Your task to perform on an android device: empty trash in the gmail app Image 0: 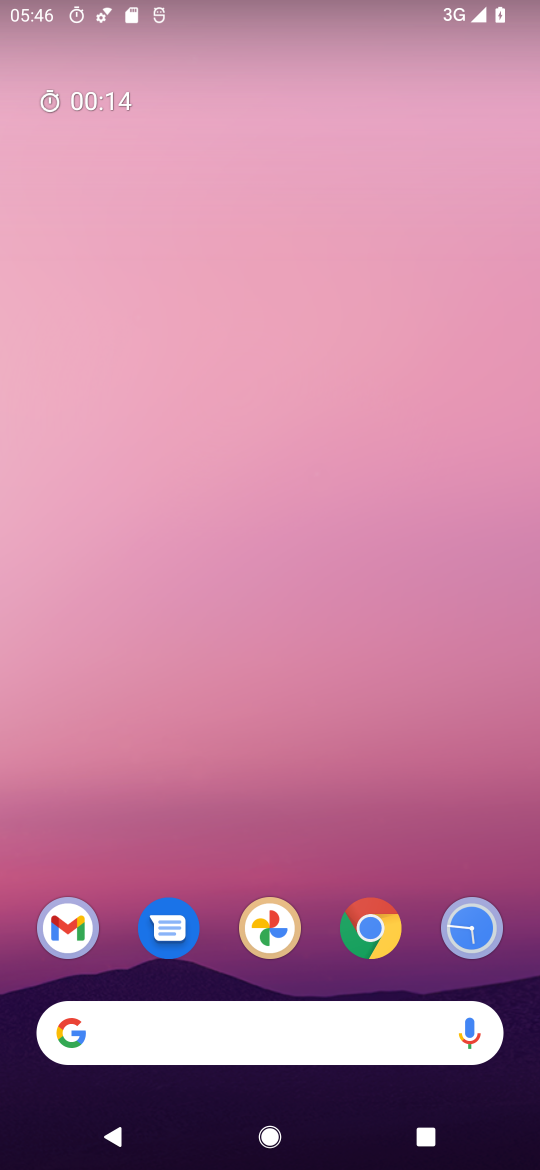
Step 0: click (76, 921)
Your task to perform on an android device: empty trash in the gmail app Image 1: 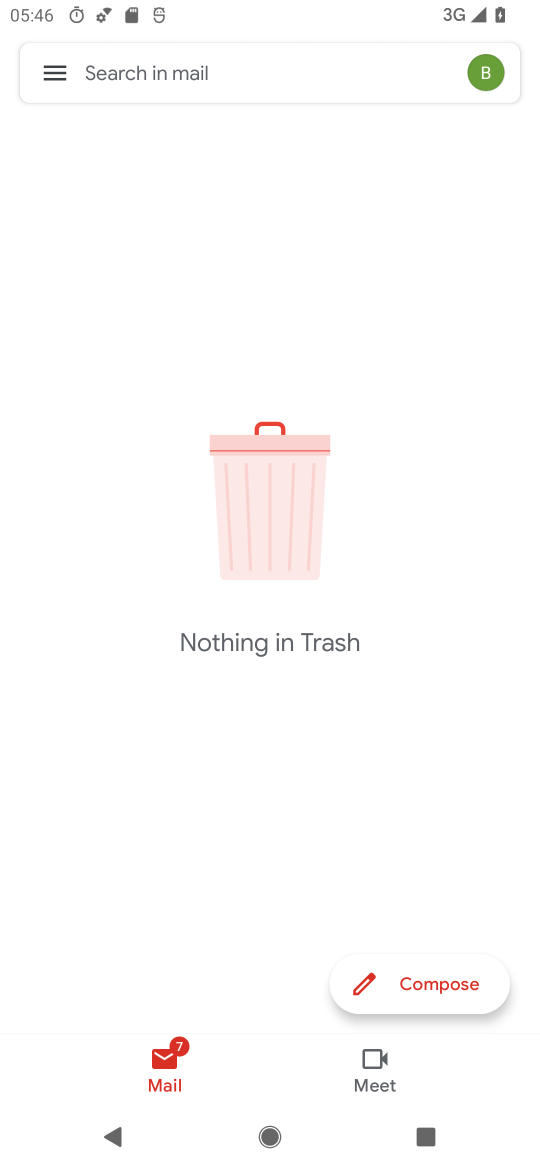
Step 1: click (45, 50)
Your task to perform on an android device: empty trash in the gmail app Image 2: 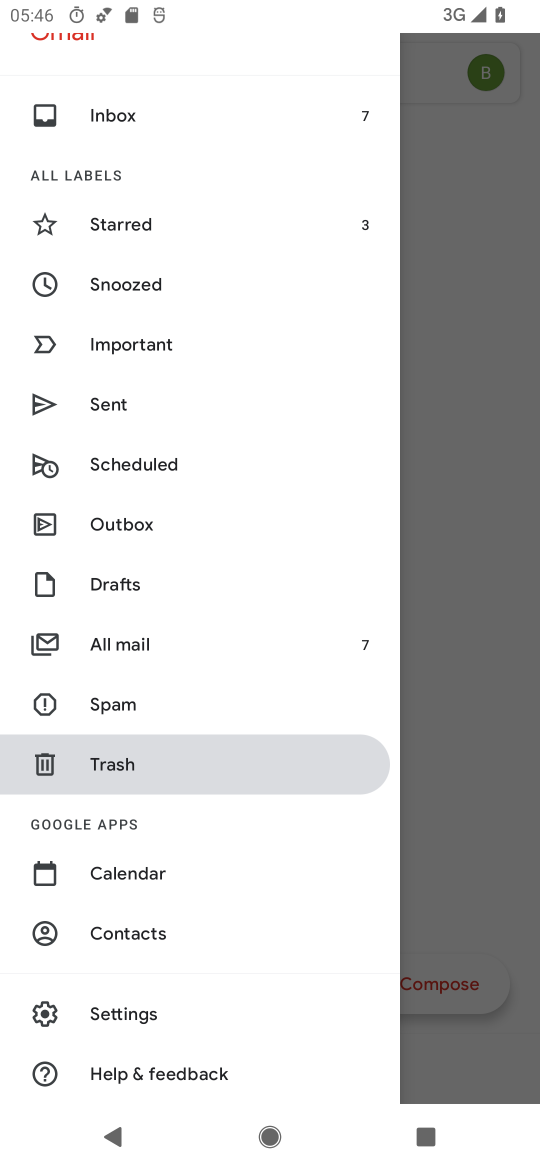
Step 2: click (143, 780)
Your task to perform on an android device: empty trash in the gmail app Image 3: 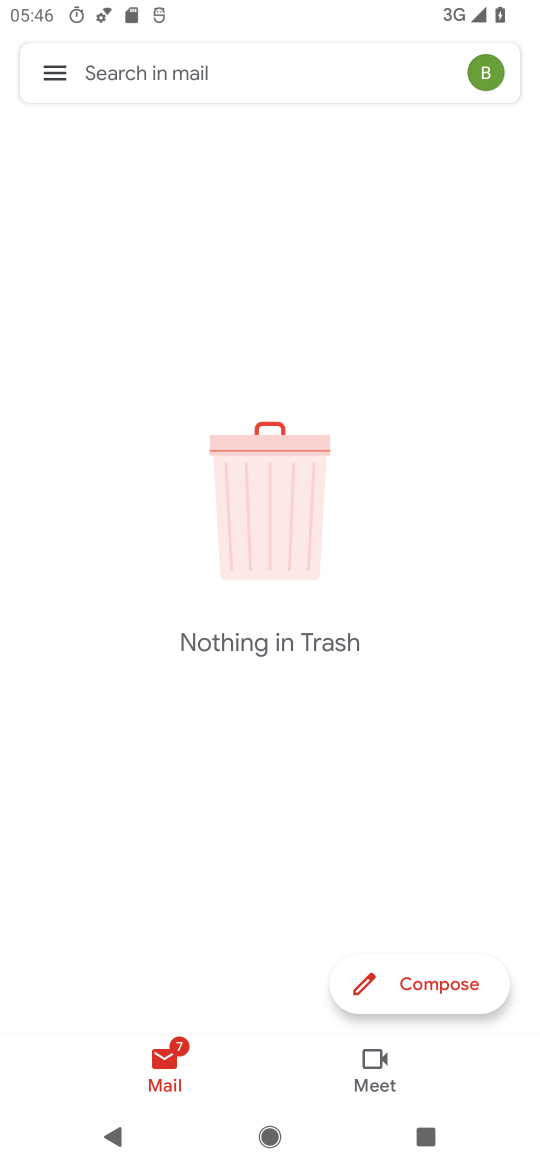
Step 3: task complete